Your task to perform on an android device: Open Chrome and go to the settings page Image 0: 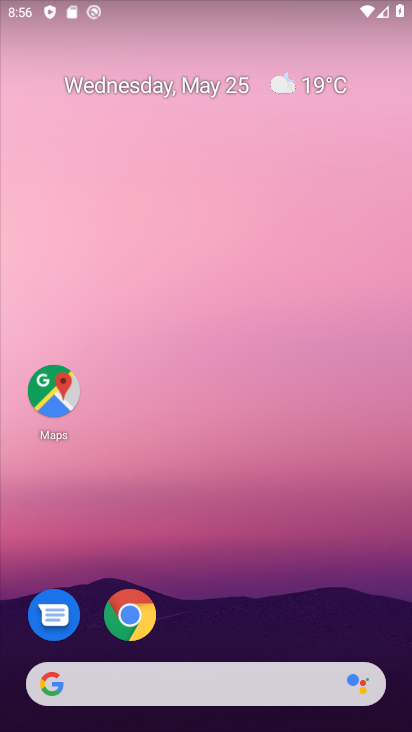
Step 0: press home button
Your task to perform on an android device: Open Chrome and go to the settings page Image 1: 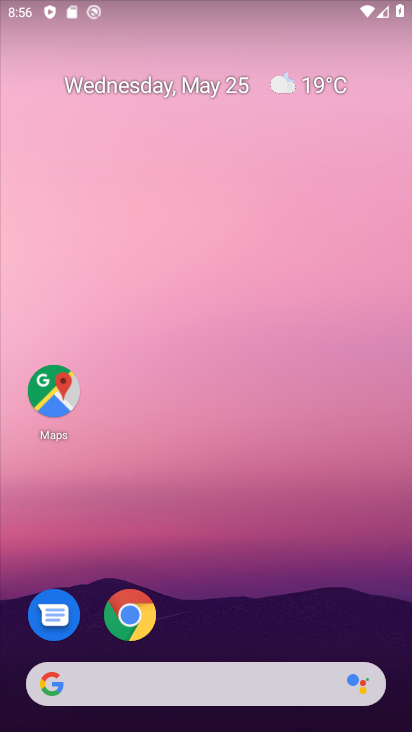
Step 1: drag from (177, 710) to (203, 182)
Your task to perform on an android device: Open Chrome and go to the settings page Image 2: 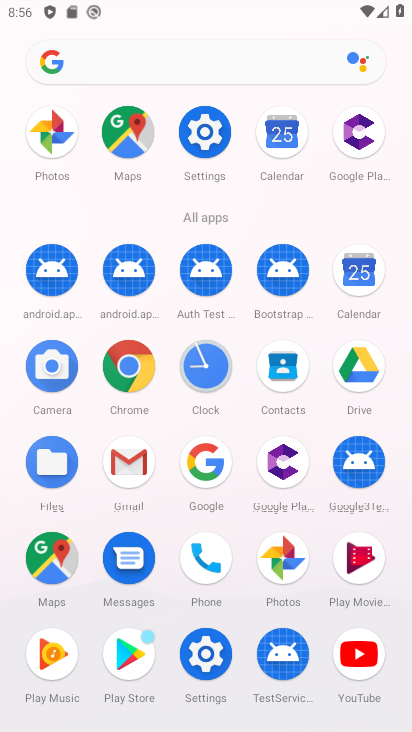
Step 2: click (140, 379)
Your task to perform on an android device: Open Chrome and go to the settings page Image 3: 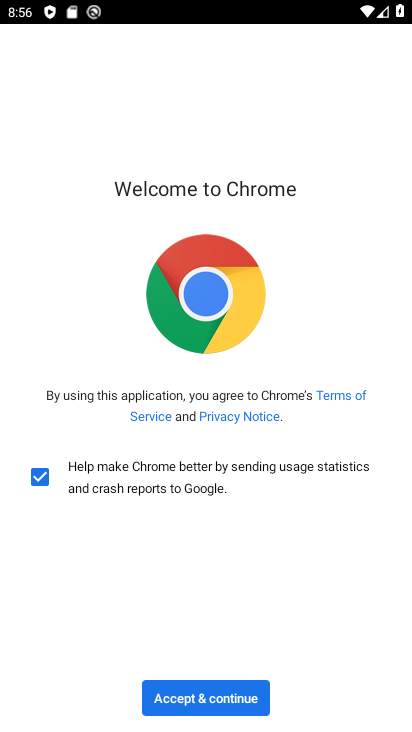
Step 3: click (217, 683)
Your task to perform on an android device: Open Chrome and go to the settings page Image 4: 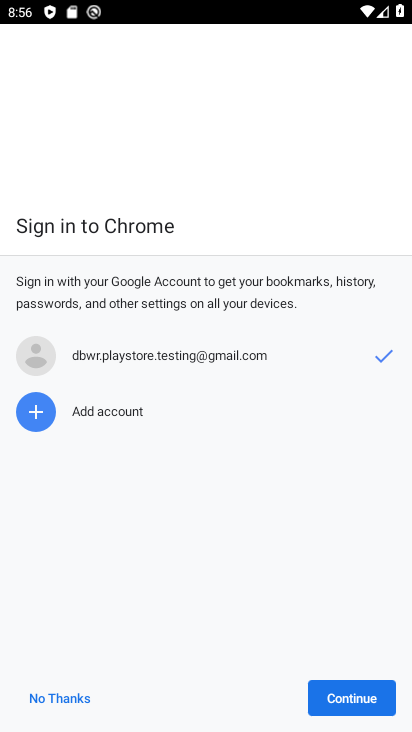
Step 4: click (340, 680)
Your task to perform on an android device: Open Chrome and go to the settings page Image 5: 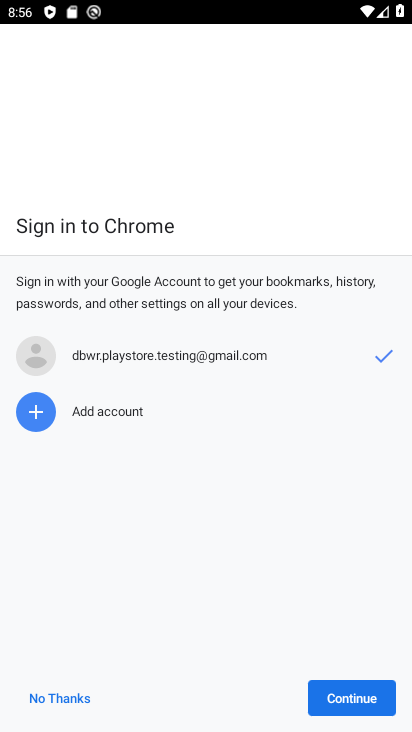
Step 5: click (363, 697)
Your task to perform on an android device: Open Chrome and go to the settings page Image 6: 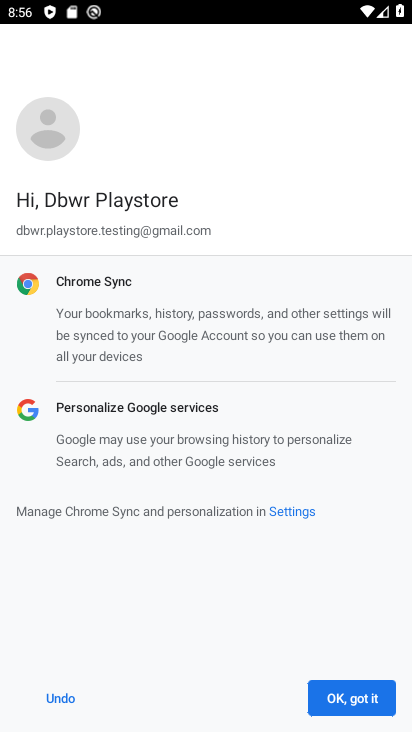
Step 6: click (343, 686)
Your task to perform on an android device: Open Chrome and go to the settings page Image 7: 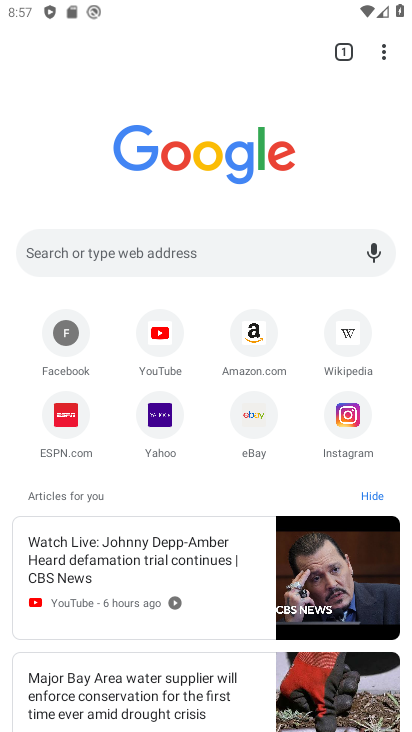
Step 7: click (393, 62)
Your task to perform on an android device: Open Chrome and go to the settings page Image 8: 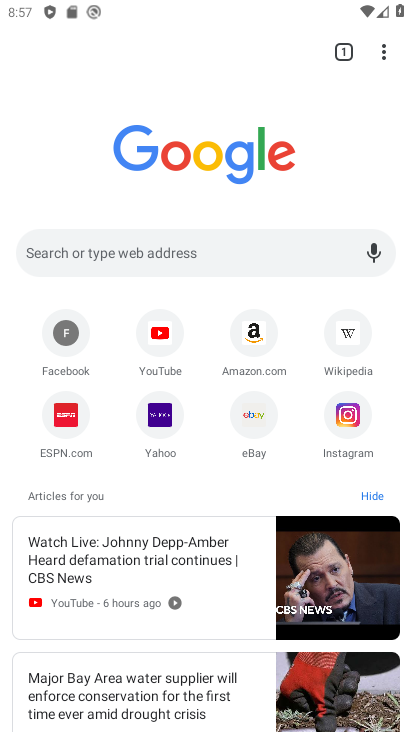
Step 8: click (387, 57)
Your task to perform on an android device: Open Chrome and go to the settings page Image 9: 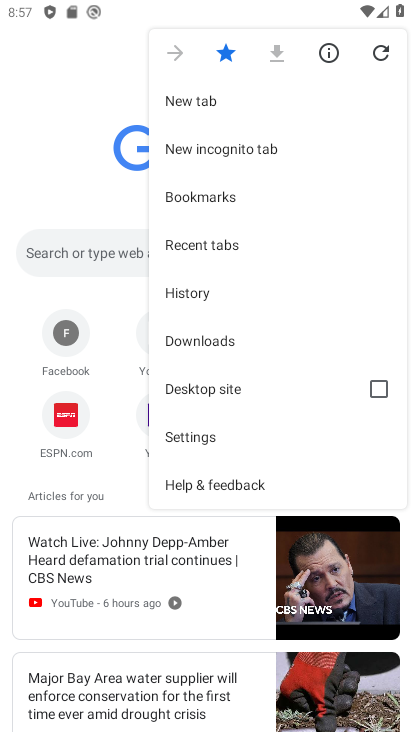
Step 9: click (200, 435)
Your task to perform on an android device: Open Chrome and go to the settings page Image 10: 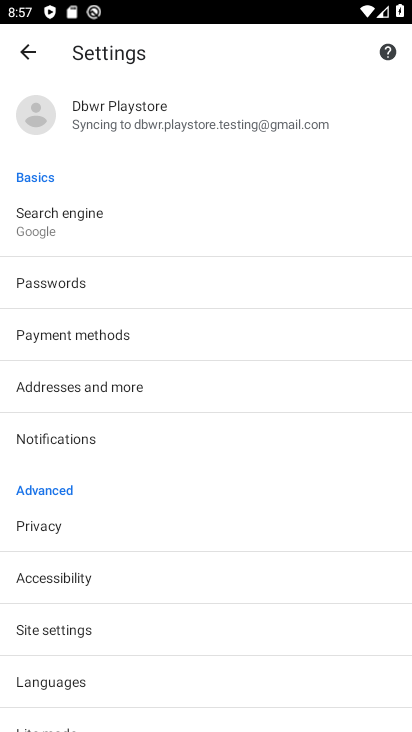
Step 10: task complete